Your task to perform on an android device: Empty the shopping cart on ebay. Search for "panasonic triple a" on ebay, select the first entry, add it to the cart, then select checkout. Image 0: 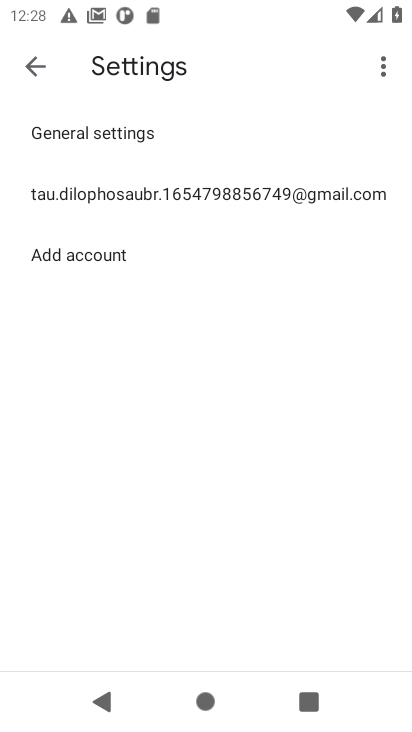
Step 0: press home button
Your task to perform on an android device: Empty the shopping cart on ebay. Search for "panasonic triple a" on ebay, select the first entry, add it to the cart, then select checkout. Image 1: 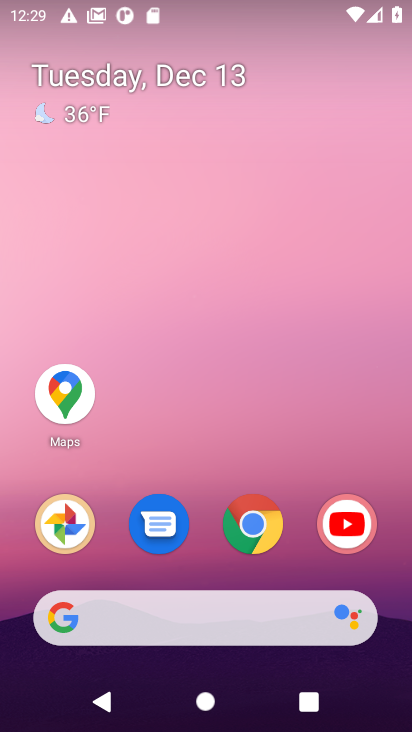
Step 1: click (257, 532)
Your task to perform on an android device: Empty the shopping cart on ebay. Search for "panasonic triple a" on ebay, select the first entry, add it to the cart, then select checkout. Image 2: 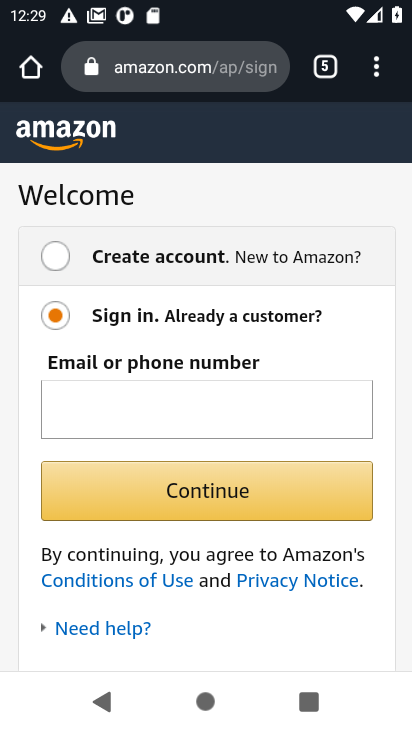
Step 2: click (148, 75)
Your task to perform on an android device: Empty the shopping cart on ebay. Search for "panasonic triple a" on ebay, select the first entry, add it to the cart, then select checkout. Image 3: 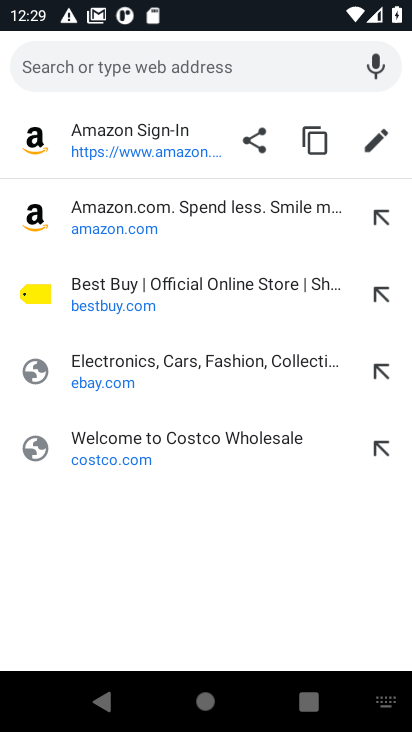
Step 3: click (90, 390)
Your task to perform on an android device: Empty the shopping cart on ebay. Search for "panasonic triple a" on ebay, select the first entry, add it to the cart, then select checkout. Image 4: 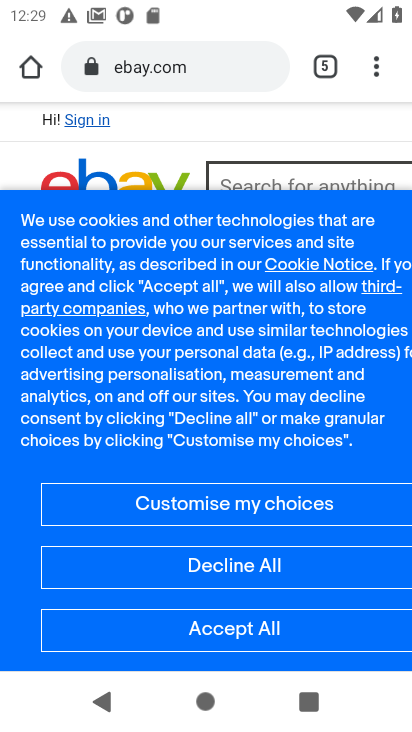
Step 4: drag from (319, 143) to (40, 131)
Your task to perform on an android device: Empty the shopping cart on ebay. Search for "panasonic triple a" on ebay, select the first entry, add it to the cart, then select checkout. Image 5: 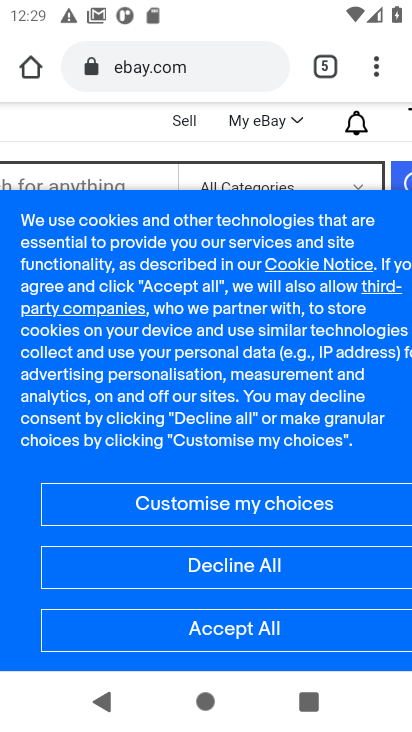
Step 5: drag from (383, 149) to (156, 135)
Your task to perform on an android device: Empty the shopping cart on ebay. Search for "panasonic triple a" on ebay, select the first entry, add it to the cart, then select checkout. Image 6: 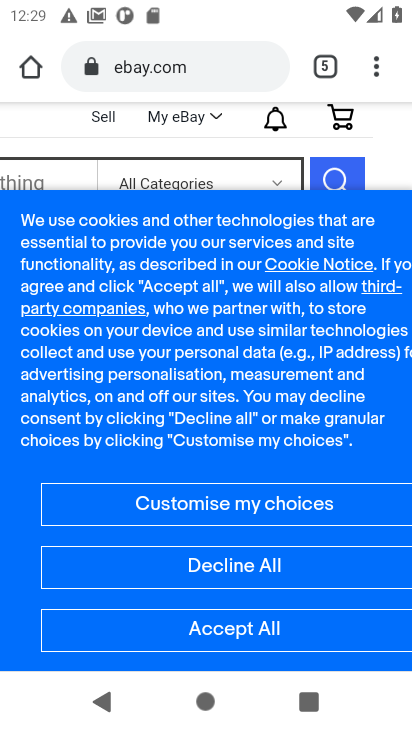
Step 6: click (205, 629)
Your task to perform on an android device: Empty the shopping cart on ebay. Search for "panasonic triple a" on ebay, select the first entry, add it to the cart, then select checkout. Image 7: 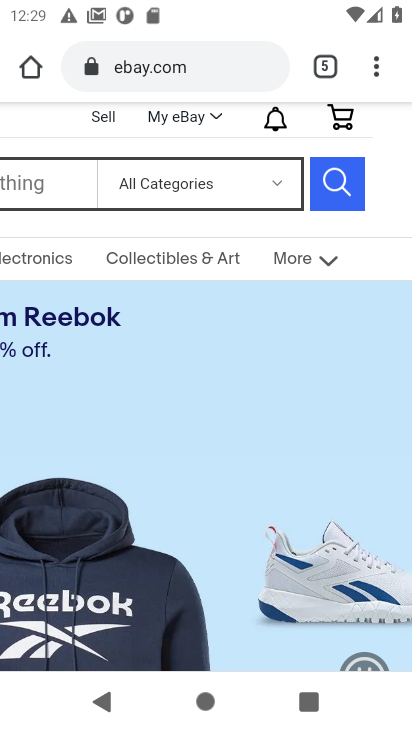
Step 7: click (346, 118)
Your task to perform on an android device: Empty the shopping cart on ebay. Search for "panasonic triple a" on ebay, select the first entry, add it to the cart, then select checkout. Image 8: 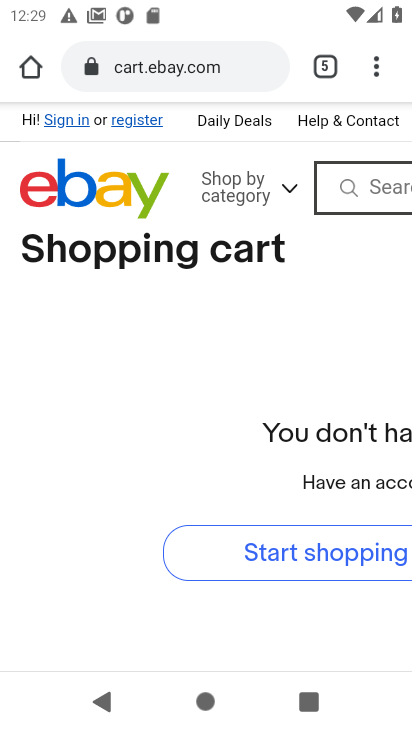
Step 8: click (396, 191)
Your task to perform on an android device: Empty the shopping cart on ebay. Search for "panasonic triple a" on ebay, select the first entry, add it to the cart, then select checkout. Image 9: 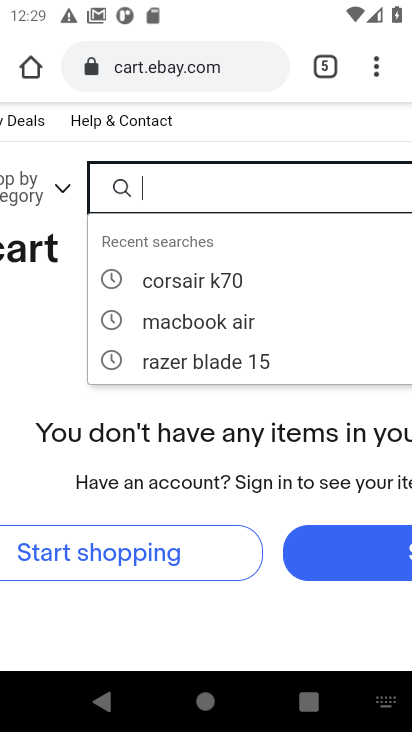
Step 9: type "panasonic triple a"
Your task to perform on an android device: Empty the shopping cart on ebay. Search for "panasonic triple a" on ebay, select the first entry, add it to the cart, then select checkout. Image 10: 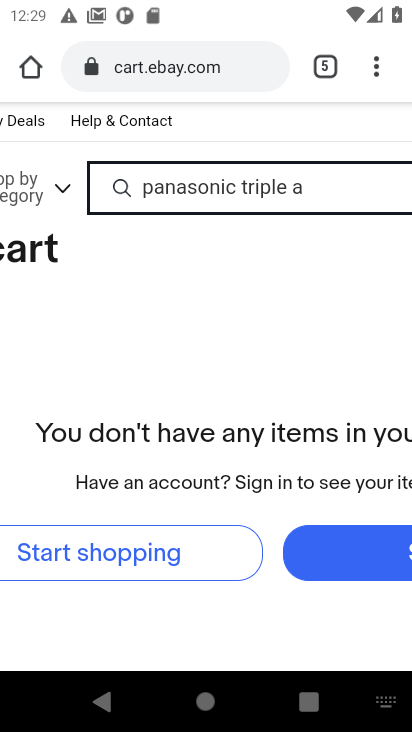
Step 10: drag from (340, 293) to (11, 266)
Your task to perform on an android device: Empty the shopping cart on ebay. Search for "panasonic triple a" on ebay, select the first entry, add it to the cart, then select checkout. Image 11: 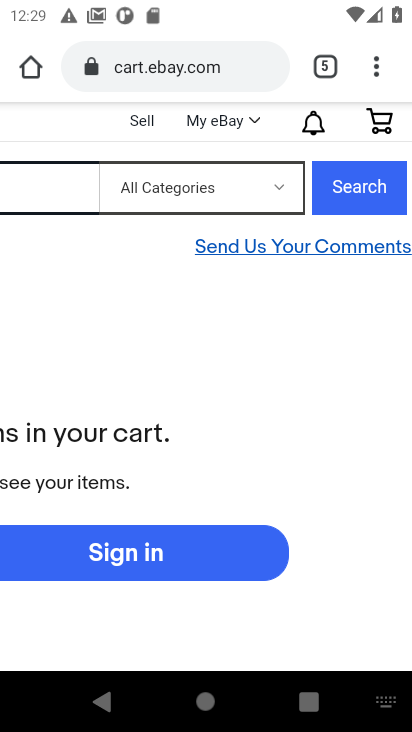
Step 11: click (336, 196)
Your task to perform on an android device: Empty the shopping cart on ebay. Search for "panasonic triple a" on ebay, select the first entry, add it to the cart, then select checkout. Image 12: 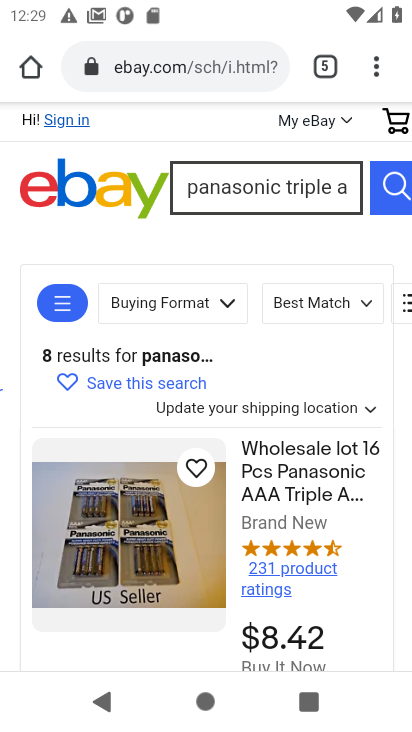
Step 12: click (297, 501)
Your task to perform on an android device: Empty the shopping cart on ebay. Search for "panasonic triple a" on ebay, select the first entry, add it to the cart, then select checkout. Image 13: 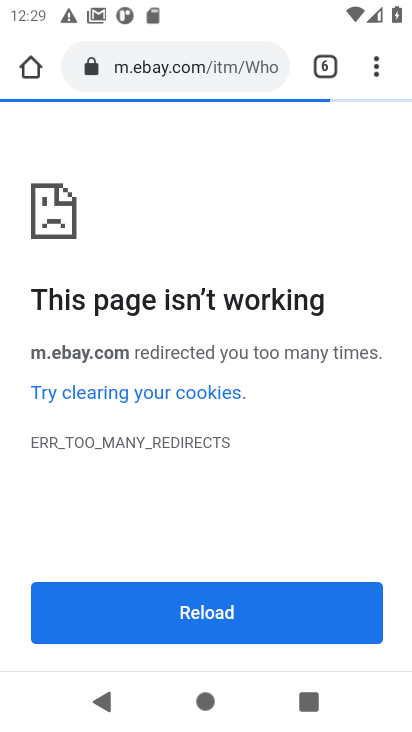
Step 13: task complete